Your task to perform on an android device: change the clock style Image 0: 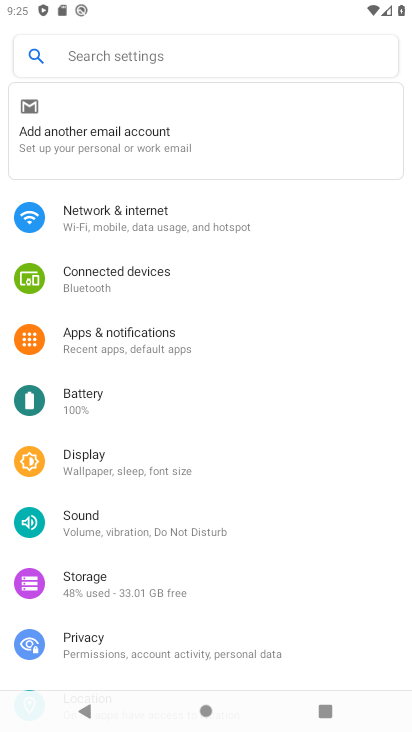
Step 0: press home button
Your task to perform on an android device: change the clock style Image 1: 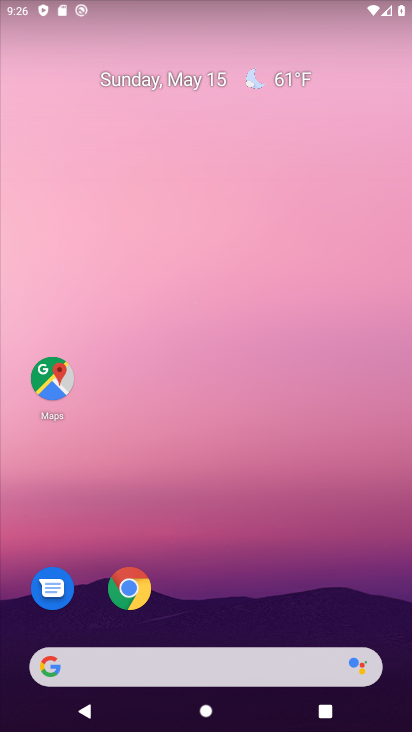
Step 1: drag from (233, 612) to (304, 1)
Your task to perform on an android device: change the clock style Image 2: 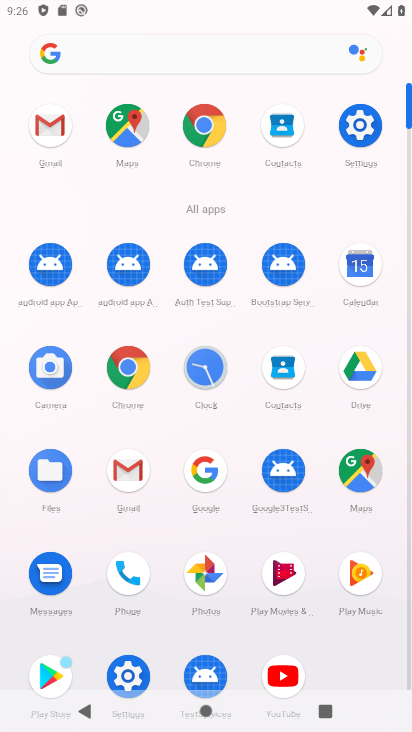
Step 2: click (206, 367)
Your task to perform on an android device: change the clock style Image 3: 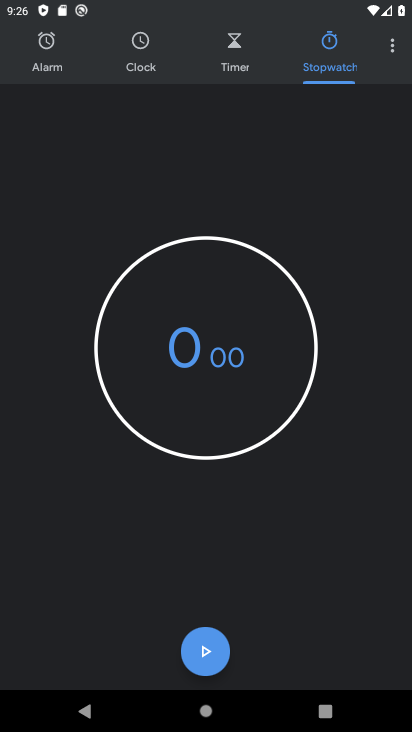
Step 3: click (402, 51)
Your task to perform on an android device: change the clock style Image 4: 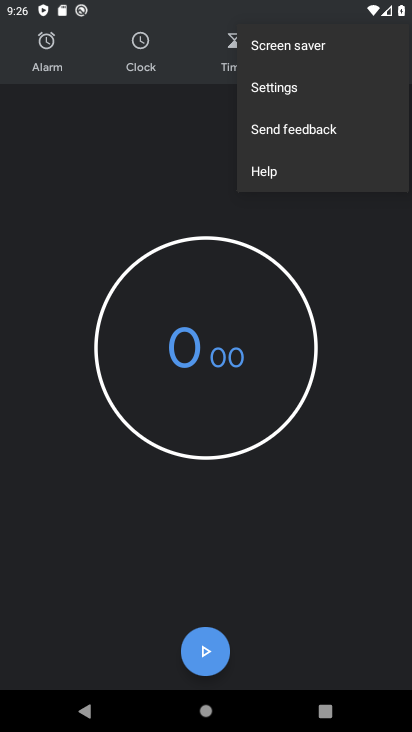
Step 4: click (273, 95)
Your task to perform on an android device: change the clock style Image 5: 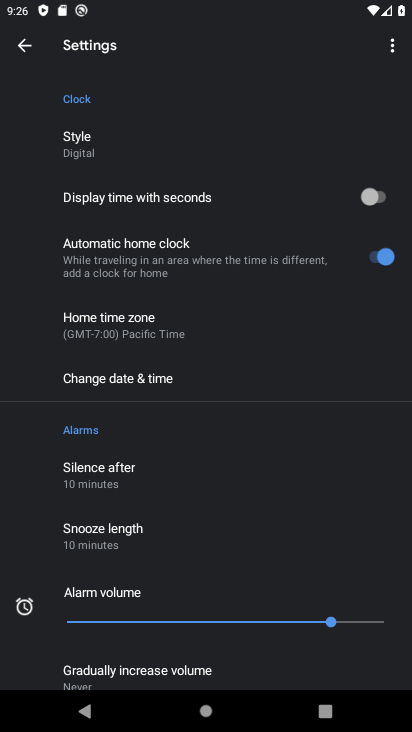
Step 5: click (80, 141)
Your task to perform on an android device: change the clock style Image 6: 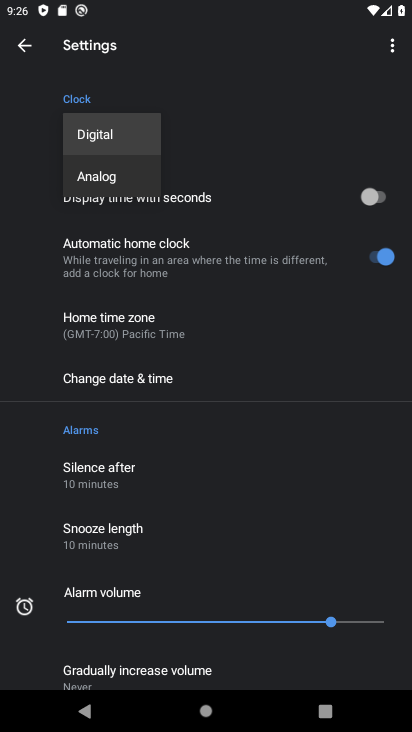
Step 6: click (109, 175)
Your task to perform on an android device: change the clock style Image 7: 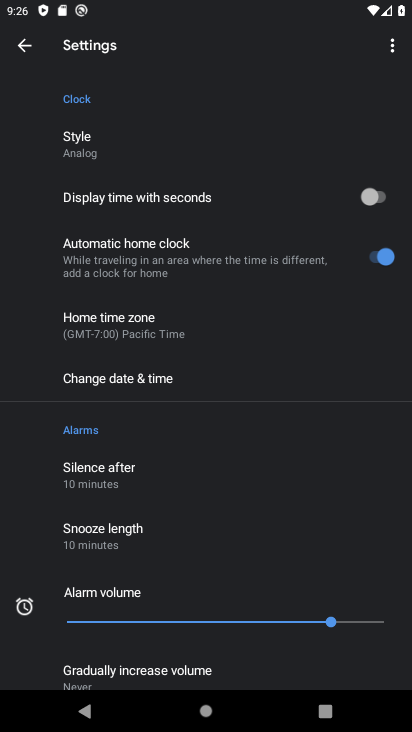
Step 7: task complete